Your task to perform on an android device: toggle wifi Image 0: 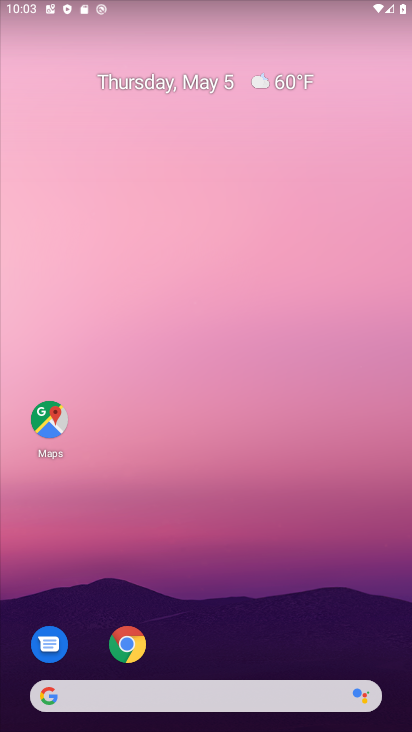
Step 0: drag from (252, 420) to (253, 25)
Your task to perform on an android device: toggle wifi Image 1: 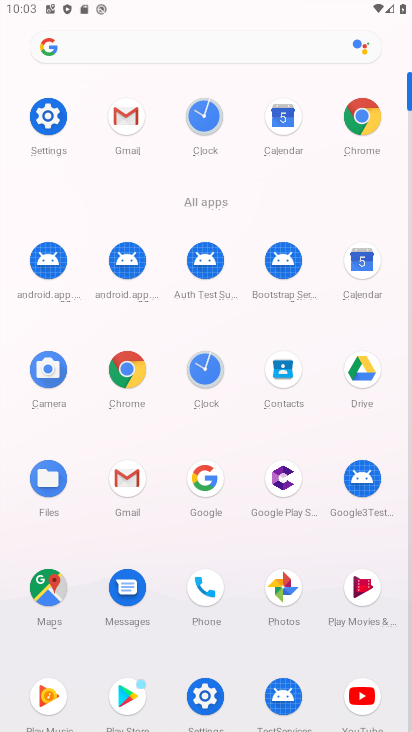
Step 1: click (62, 114)
Your task to perform on an android device: toggle wifi Image 2: 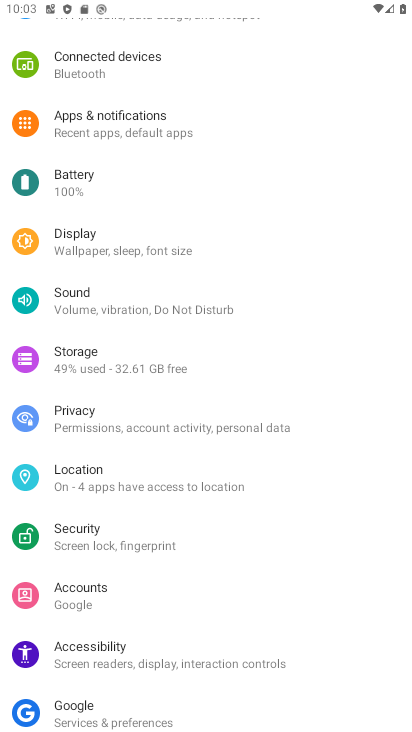
Step 2: drag from (153, 104) to (154, 538)
Your task to perform on an android device: toggle wifi Image 3: 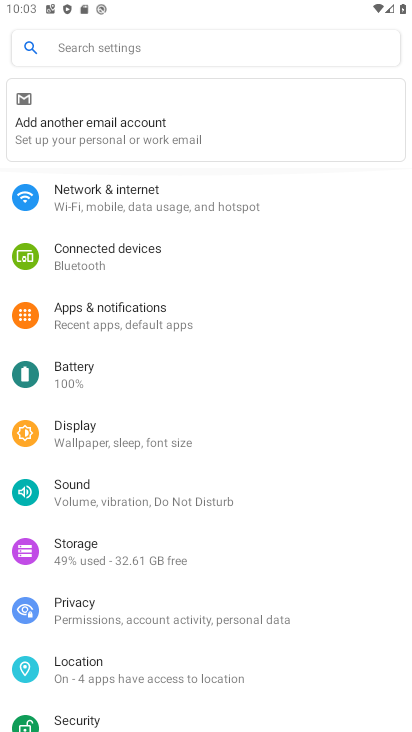
Step 3: click (148, 208)
Your task to perform on an android device: toggle wifi Image 4: 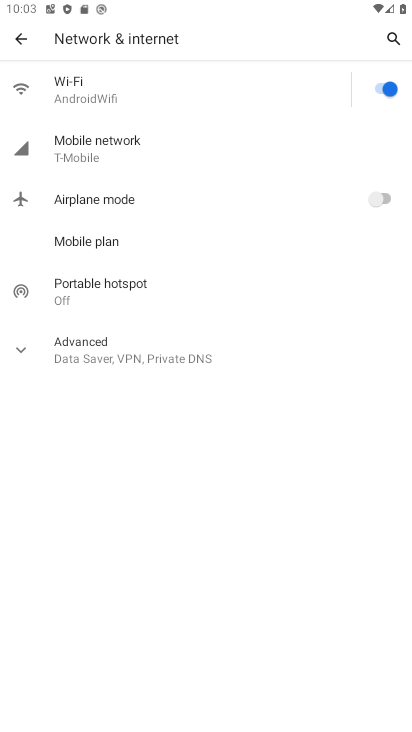
Step 4: click (392, 85)
Your task to perform on an android device: toggle wifi Image 5: 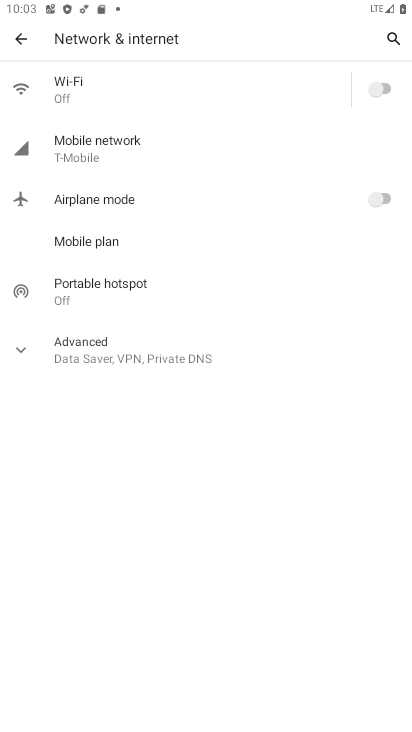
Step 5: task complete